Your task to perform on an android device: Open Reddit.com Image 0: 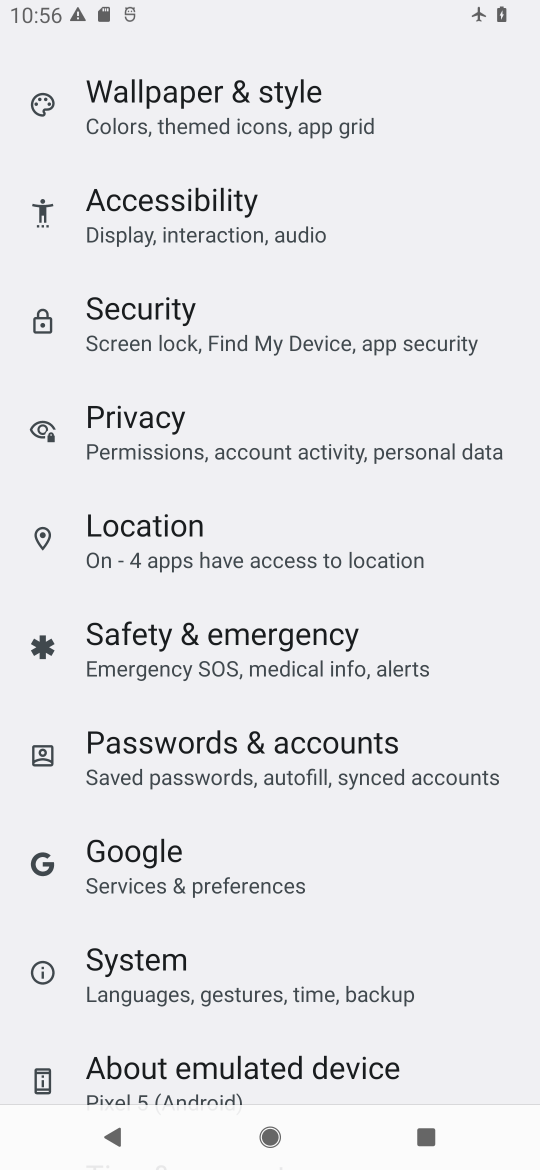
Step 0: press home button
Your task to perform on an android device: Open Reddit.com Image 1: 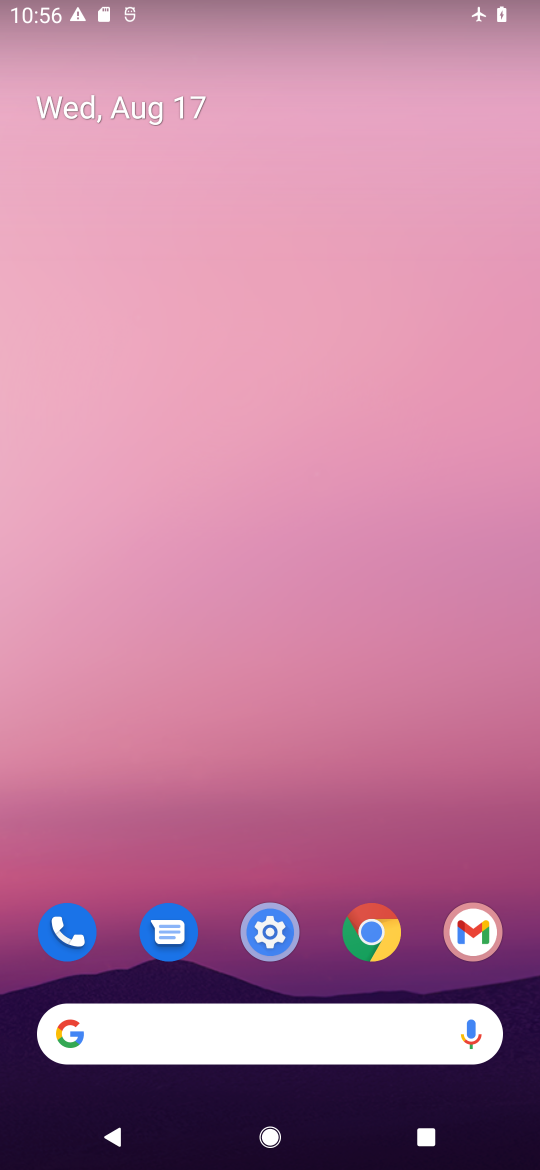
Step 1: click (356, 943)
Your task to perform on an android device: Open Reddit.com Image 2: 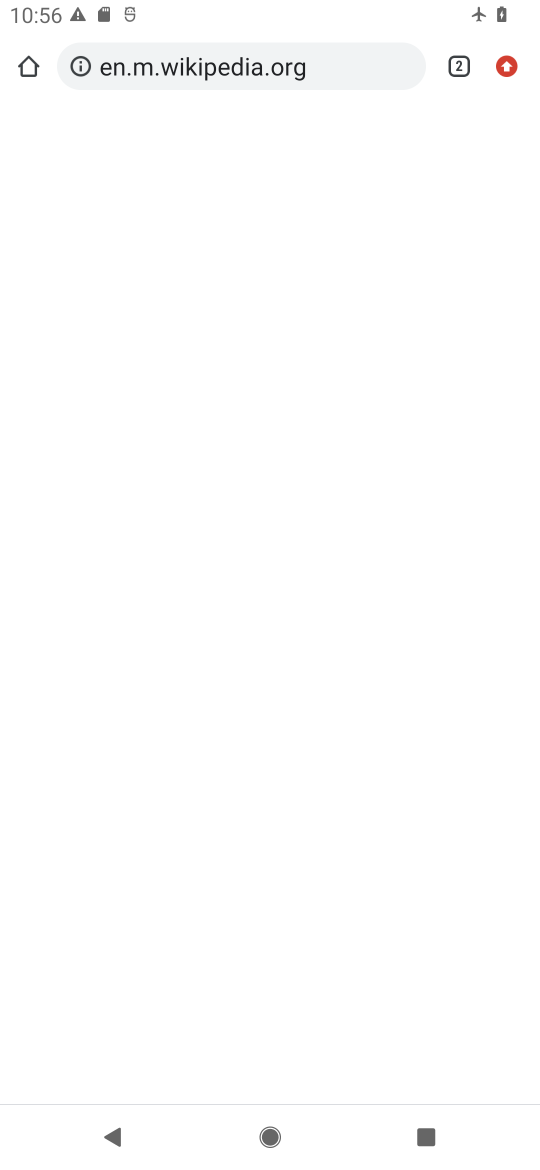
Step 2: click (450, 74)
Your task to perform on an android device: Open Reddit.com Image 3: 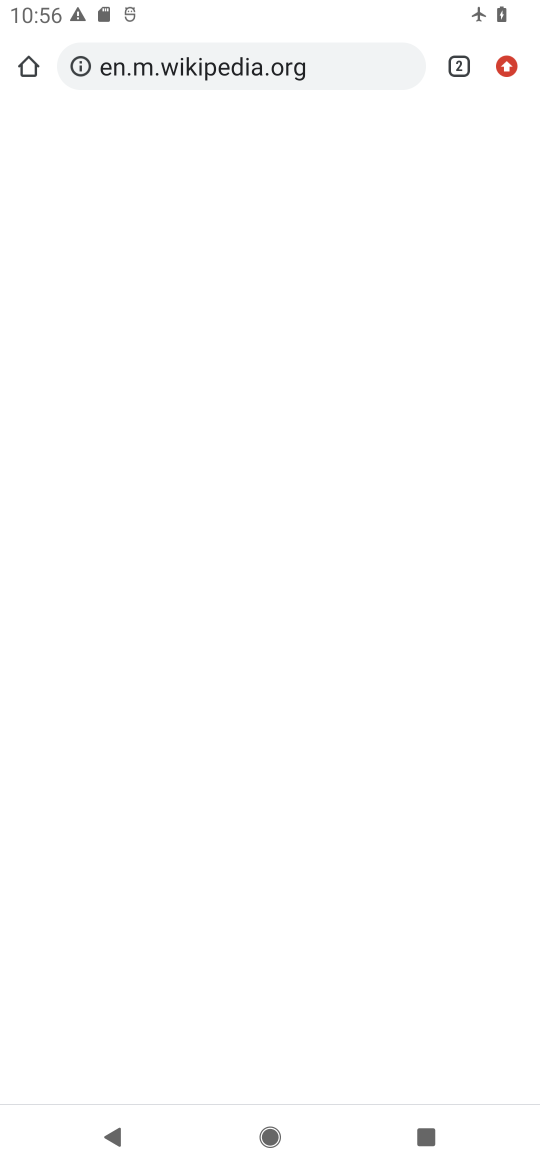
Step 3: click (454, 74)
Your task to perform on an android device: Open Reddit.com Image 4: 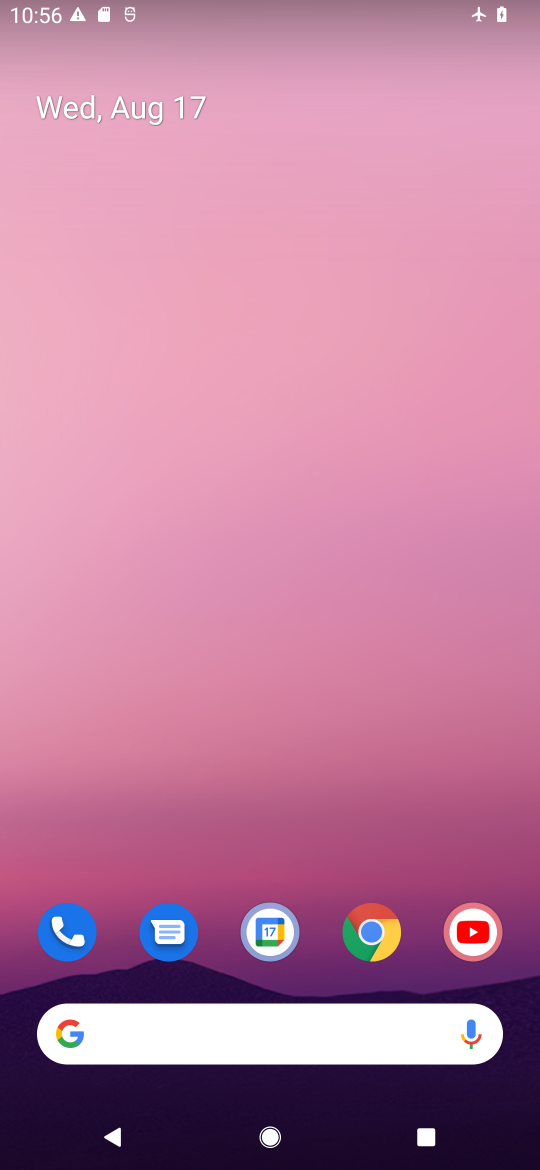
Step 4: click (357, 928)
Your task to perform on an android device: Open Reddit.com Image 5: 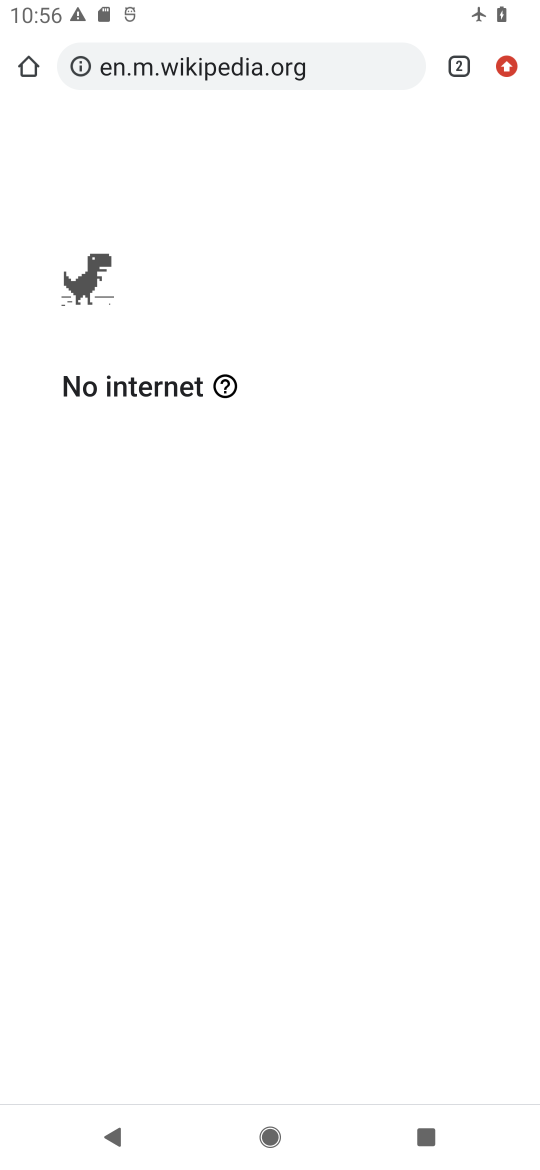
Step 5: task complete